Your task to perform on an android device: turn off smart reply in the gmail app Image 0: 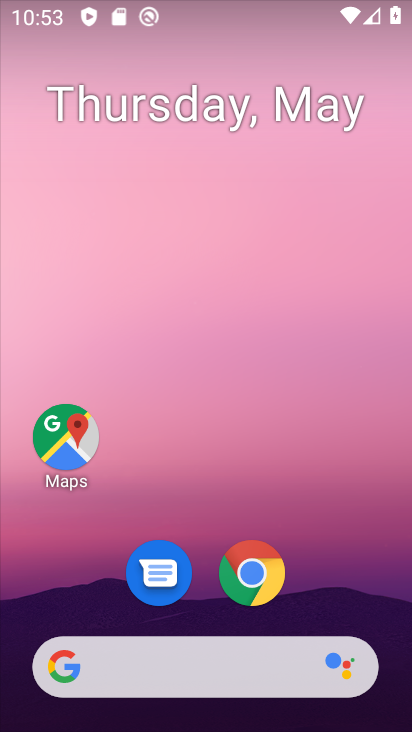
Step 0: drag from (62, 620) to (231, 90)
Your task to perform on an android device: turn off smart reply in the gmail app Image 1: 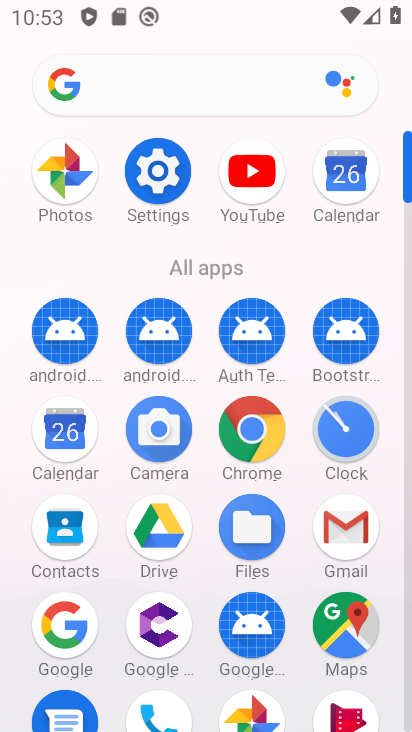
Step 1: drag from (170, 679) to (223, 429)
Your task to perform on an android device: turn off smart reply in the gmail app Image 2: 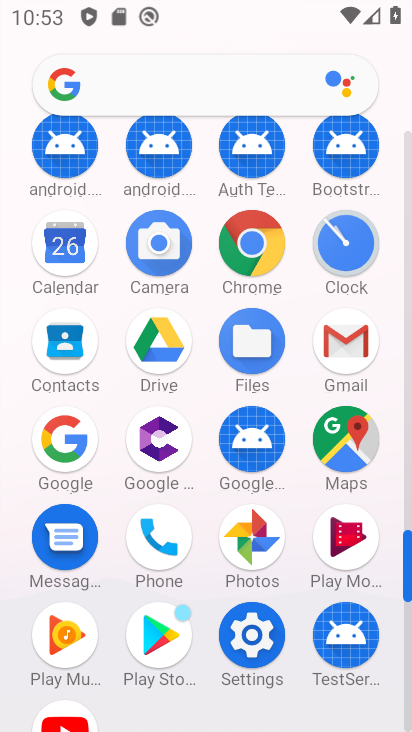
Step 2: click (346, 344)
Your task to perform on an android device: turn off smart reply in the gmail app Image 3: 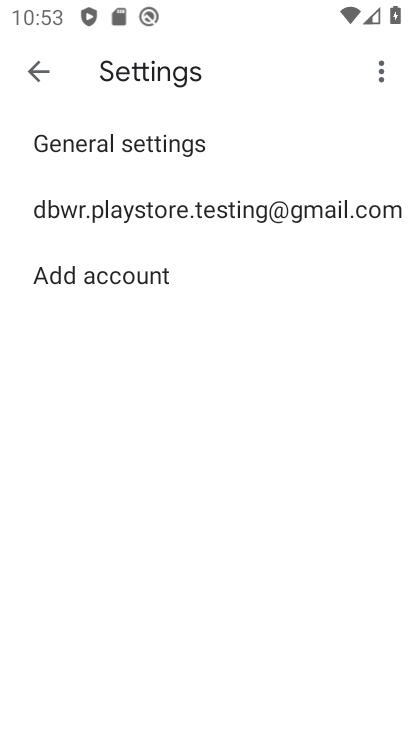
Step 3: click (241, 201)
Your task to perform on an android device: turn off smart reply in the gmail app Image 4: 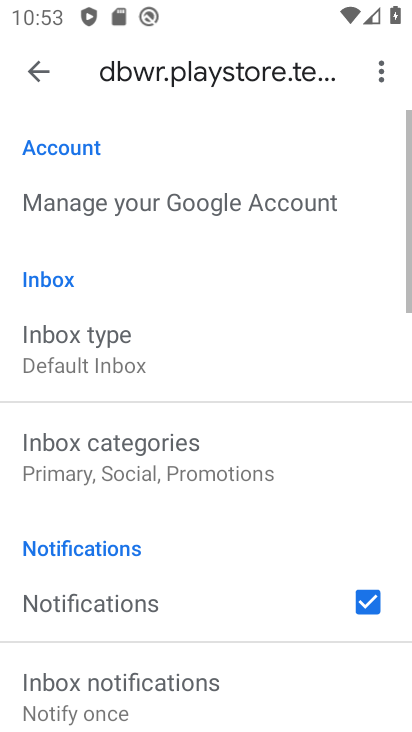
Step 4: drag from (181, 718) to (343, 178)
Your task to perform on an android device: turn off smart reply in the gmail app Image 5: 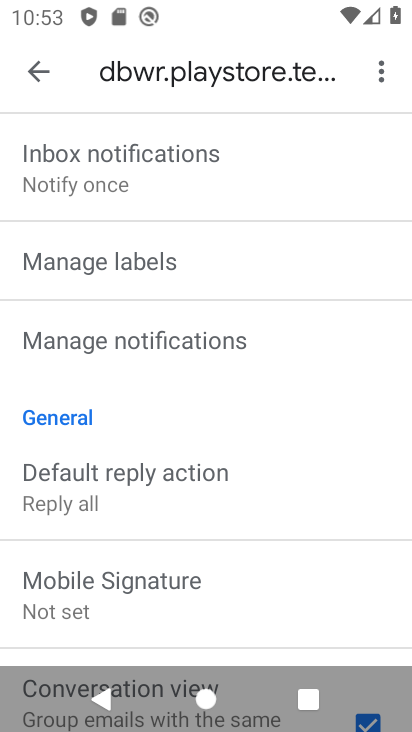
Step 5: drag from (172, 653) to (264, 179)
Your task to perform on an android device: turn off smart reply in the gmail app Image 6: 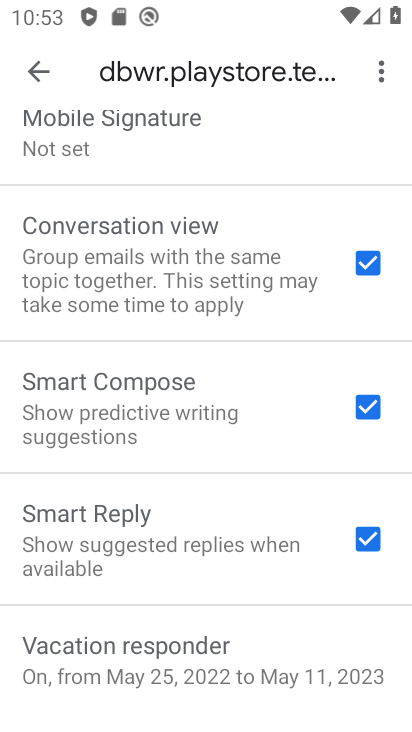
Step 6: click (360, 544)
Your task to perform on an android device: turn off smart reply in the gmail app Image 7: 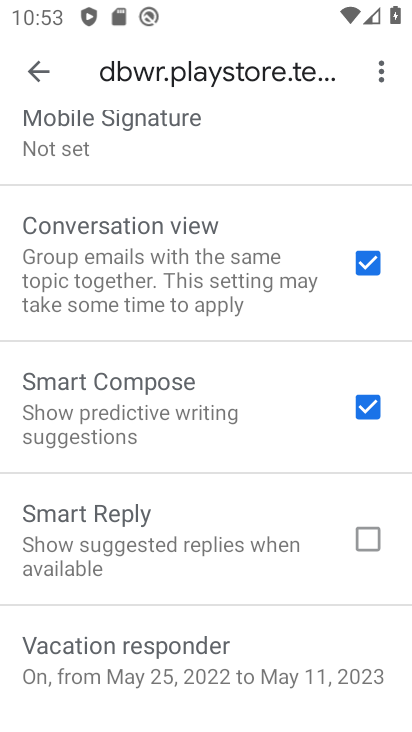
Step 7: task complete